Your task to perform on an android device: install app "Grab" Image 0: 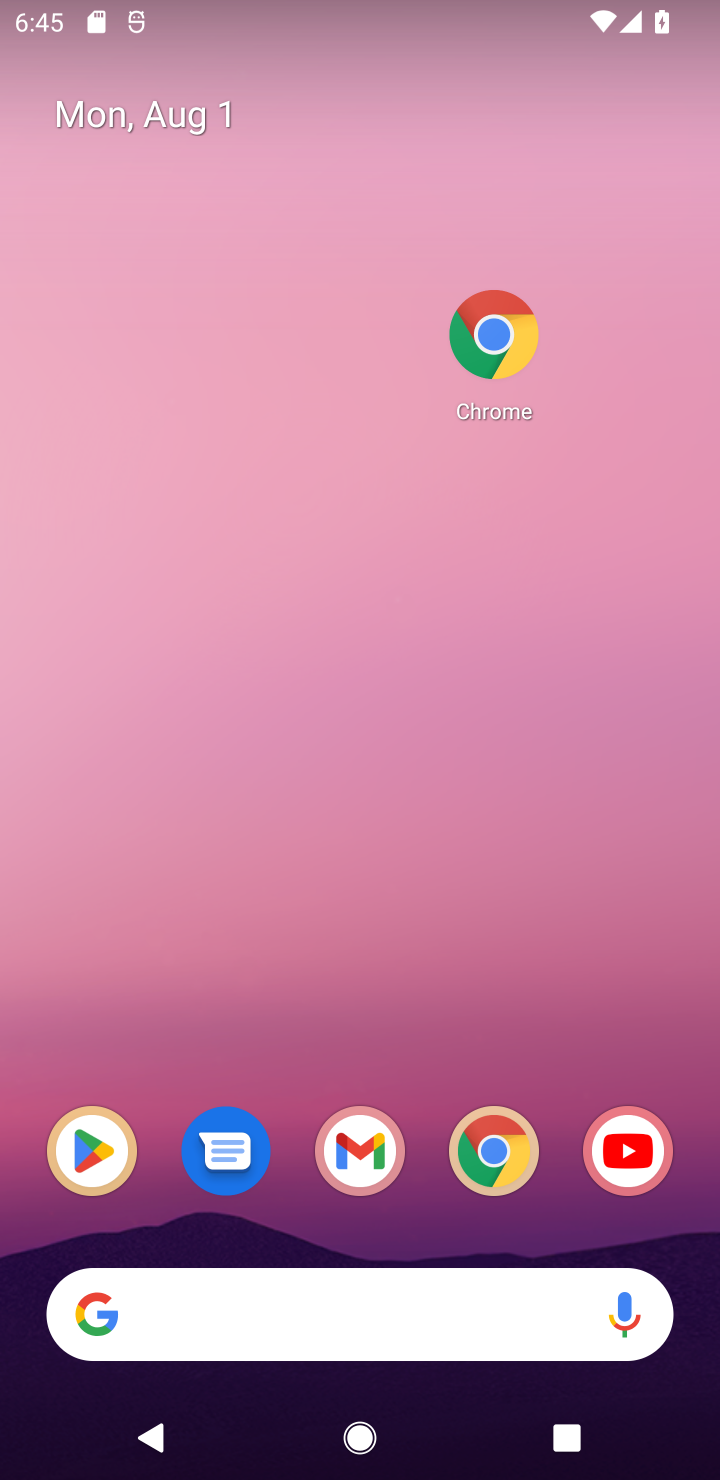
Step 0: click (92, 1180)
Your task to perform on an android device: install app "Grab" Image 1: 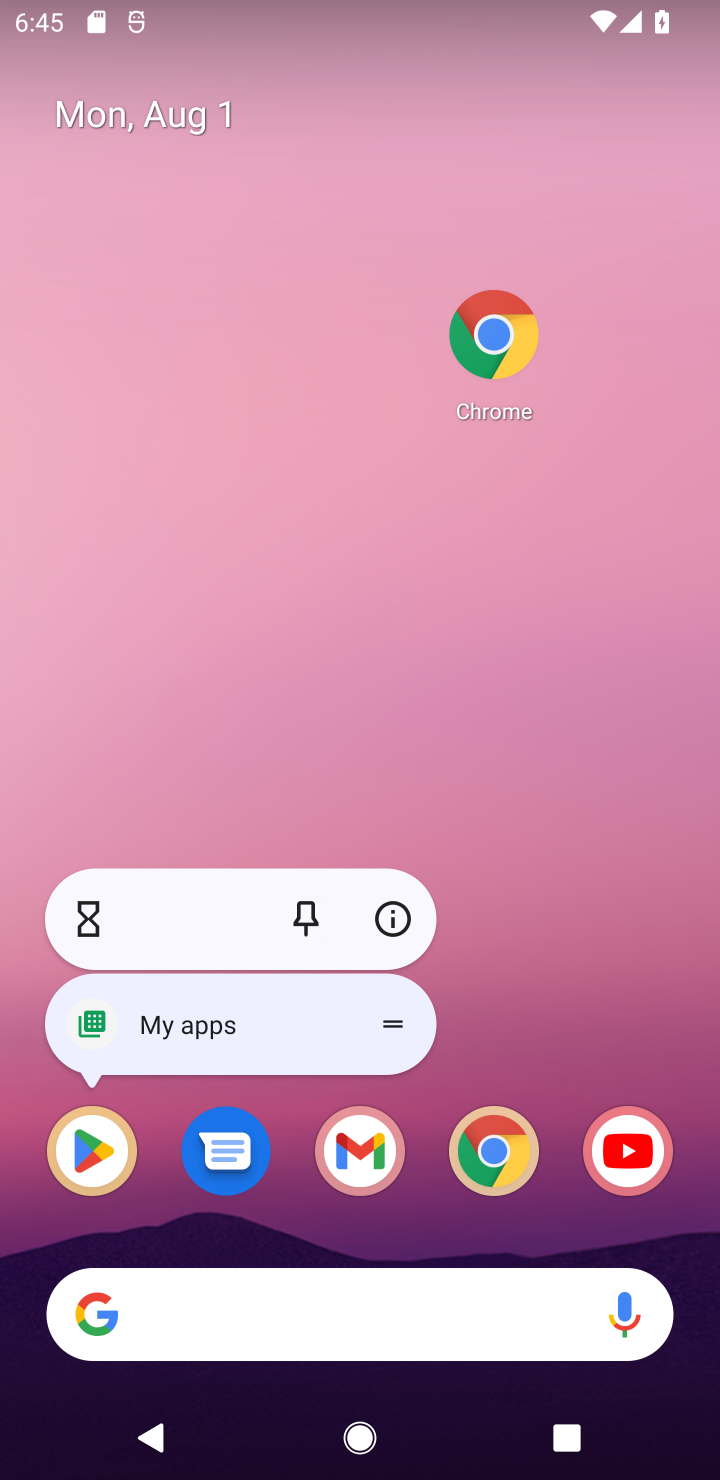
Step 1: click (84, 1144)
Your task to perform on an android device: install app "Grab" Image 2: 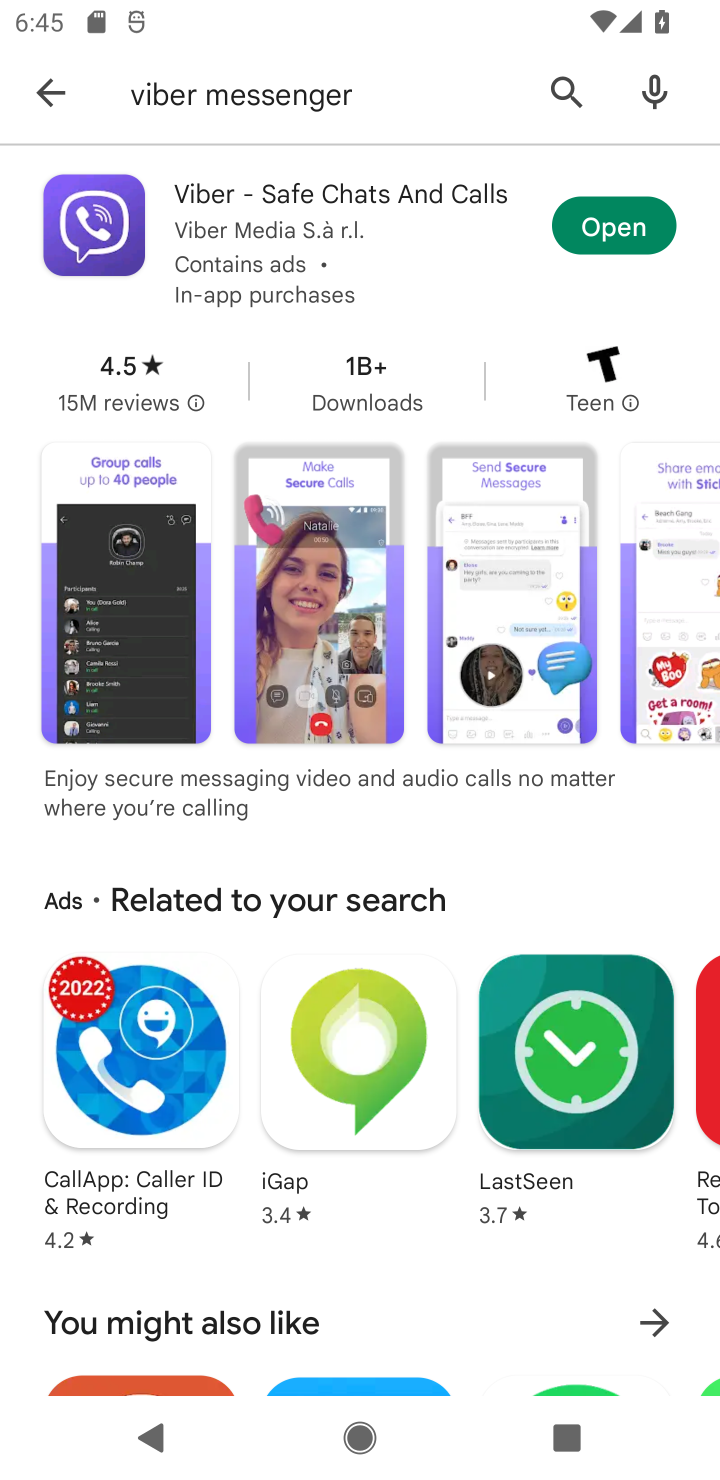
Step 2: click (567, 92)
Your task to perform on an android device: install app "Grab" Image 3: 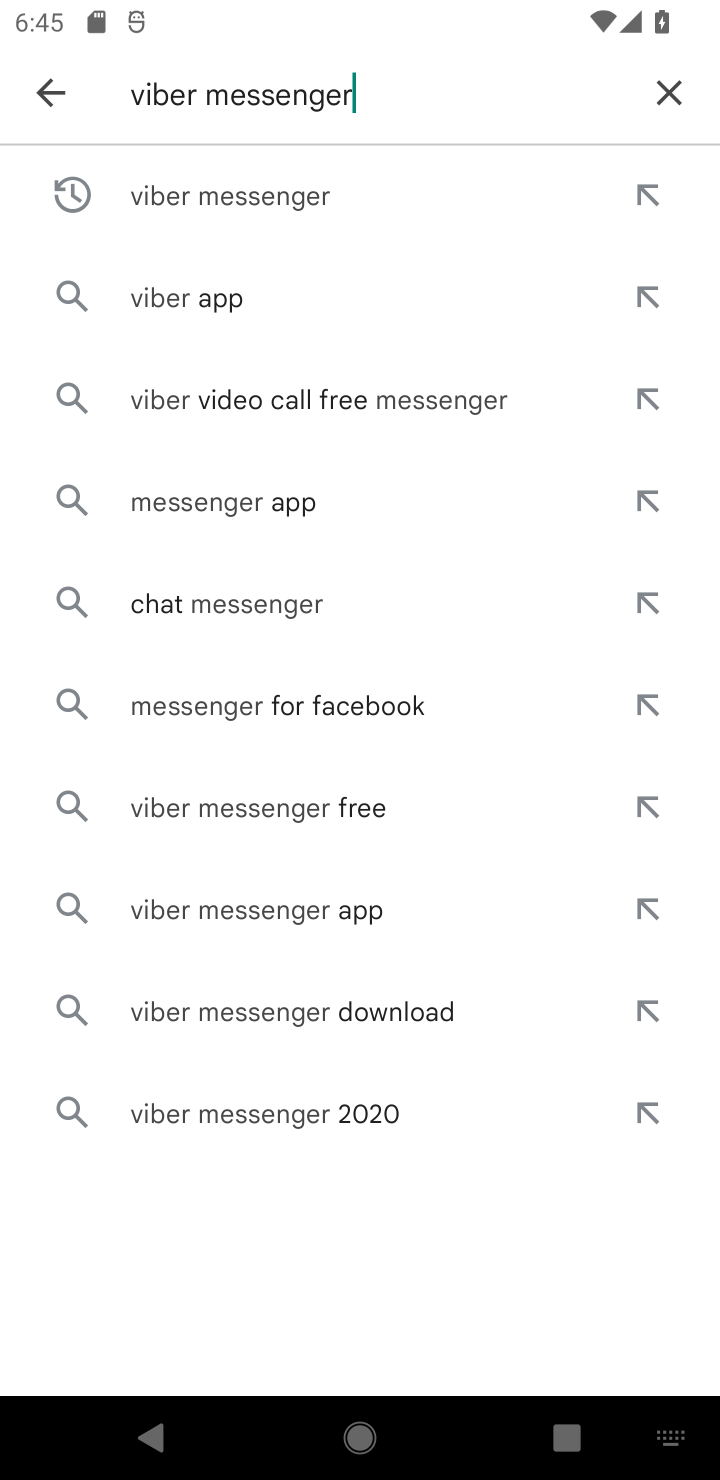
Step 3: click (665, 91)
Your task to perform on an android device: install app "Grab" Image 4: 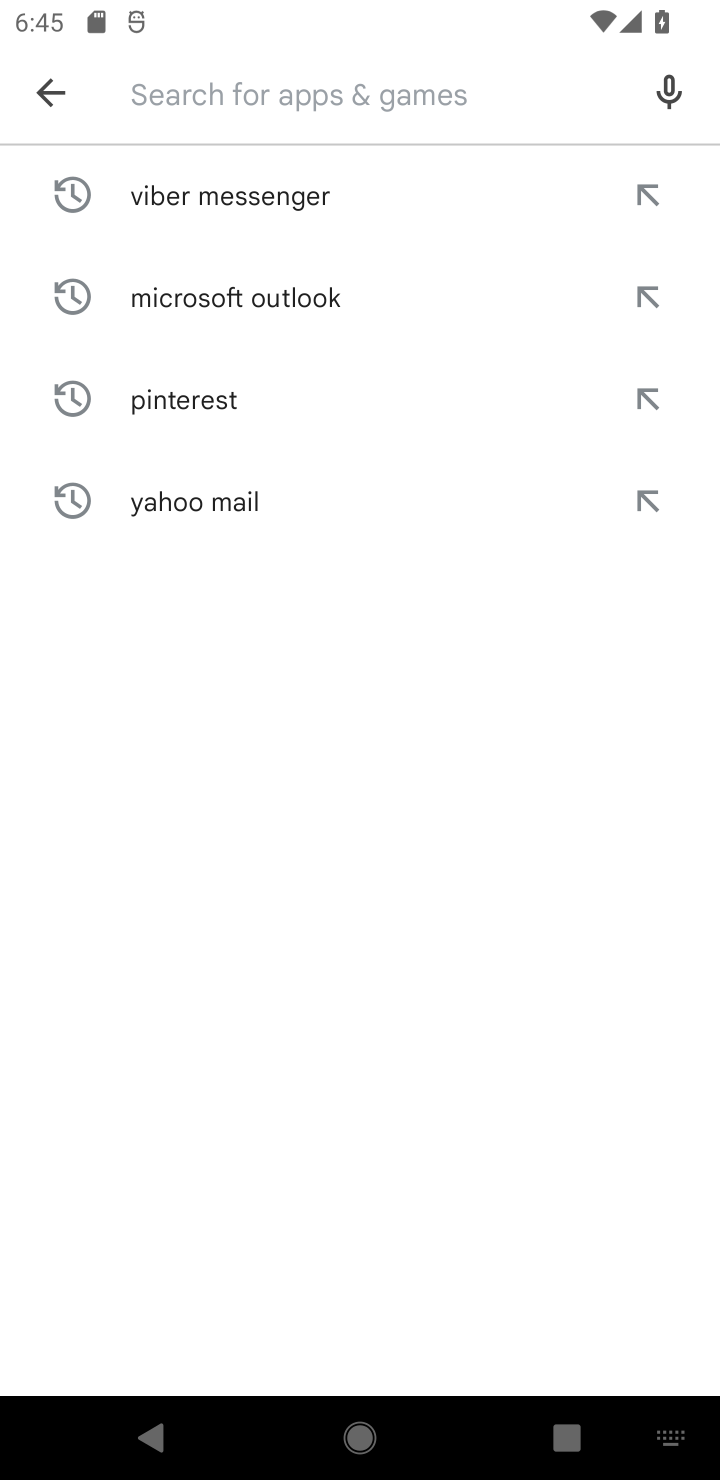
Step 4: click (373, 108)
Your task to perform on an android device: install app "Grab" Image 5: 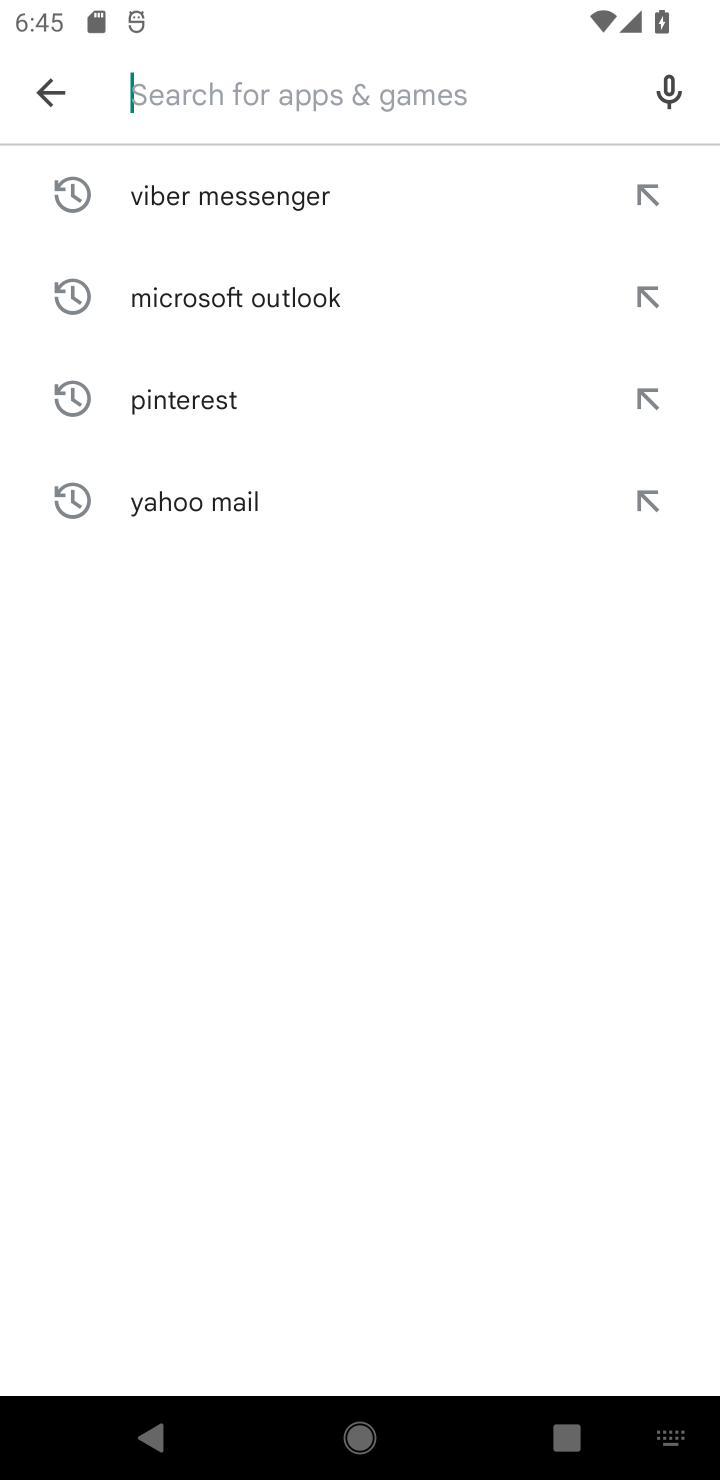
Step 5: type "Grab"
Your task to perform on an android device: install app "Grab" Image 6: 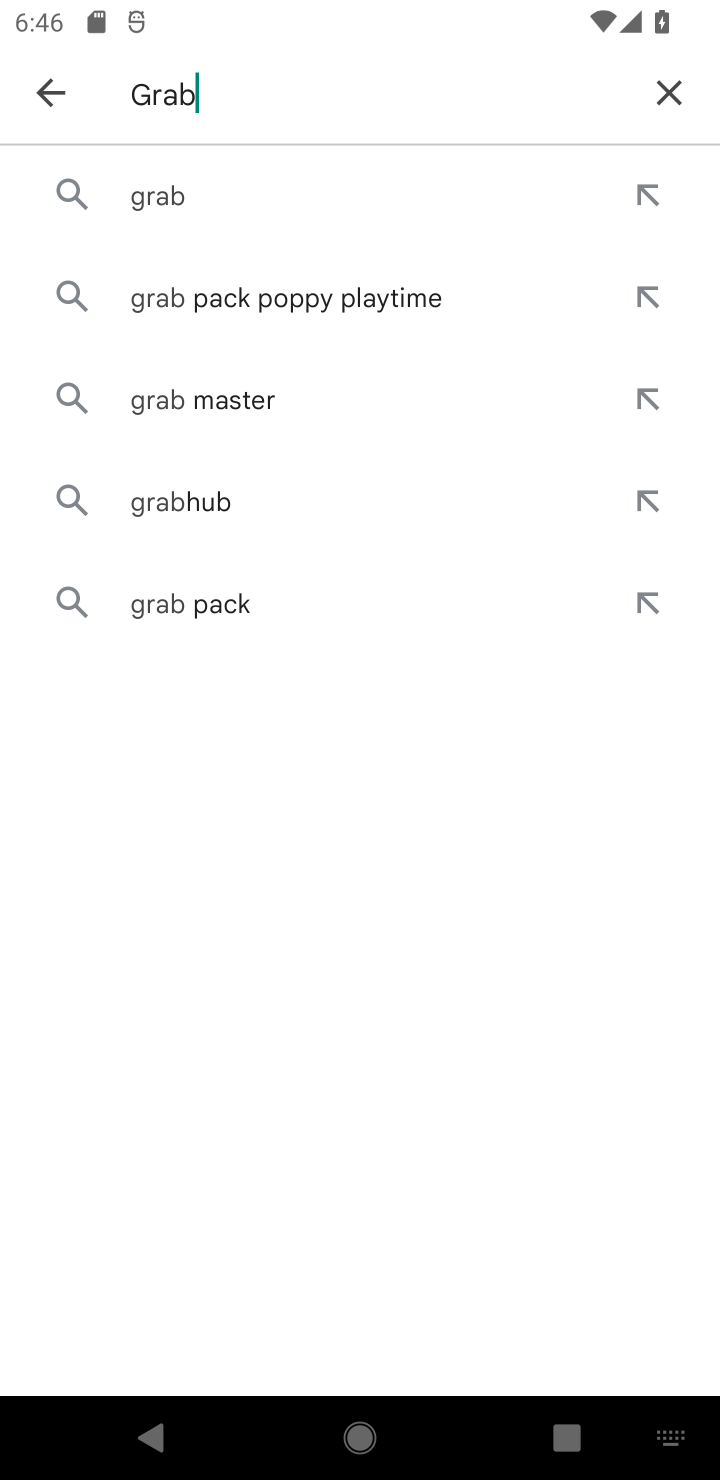
Step 6: click (163, 199)
Your task to perform on an android device: install app "Grab" Image 7: 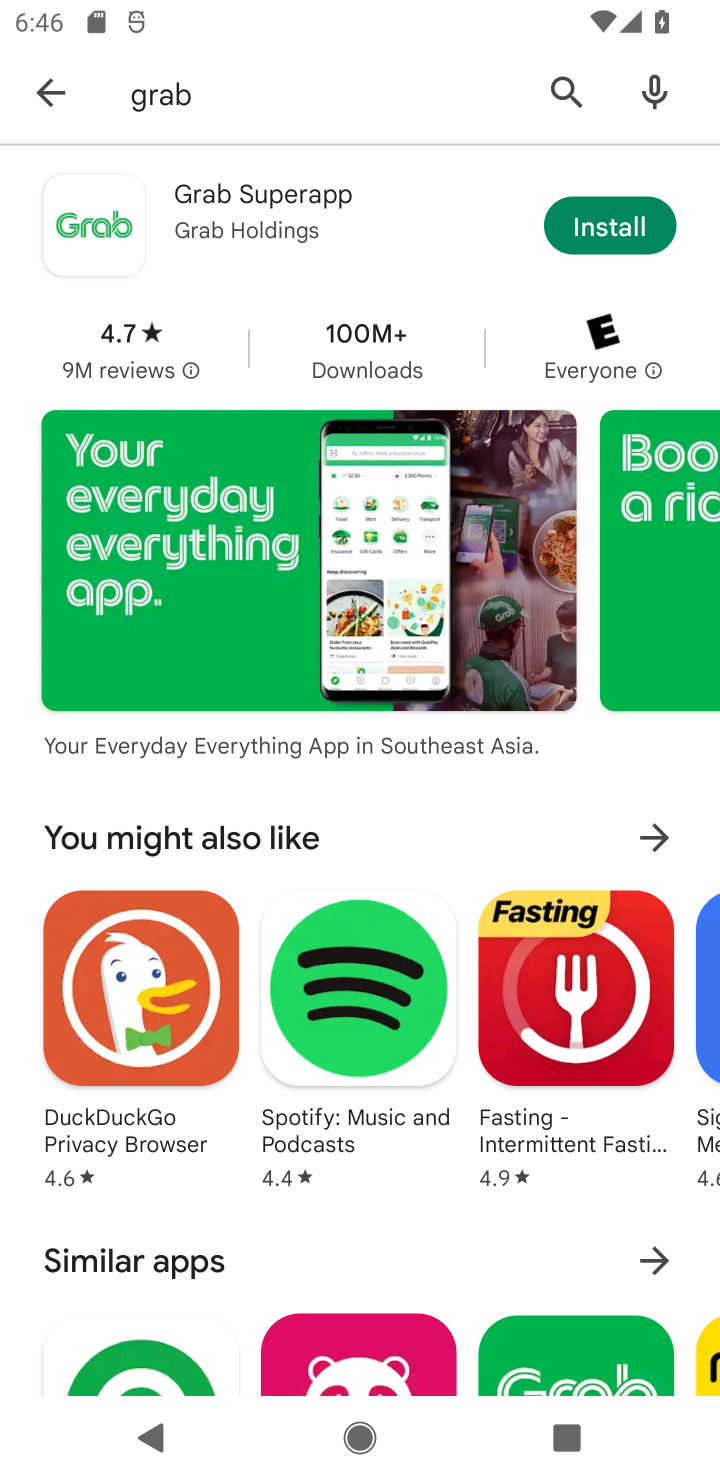
Step 7: click (590, 225)
Your task to perform on an android device: install app "Grab" Image 8: 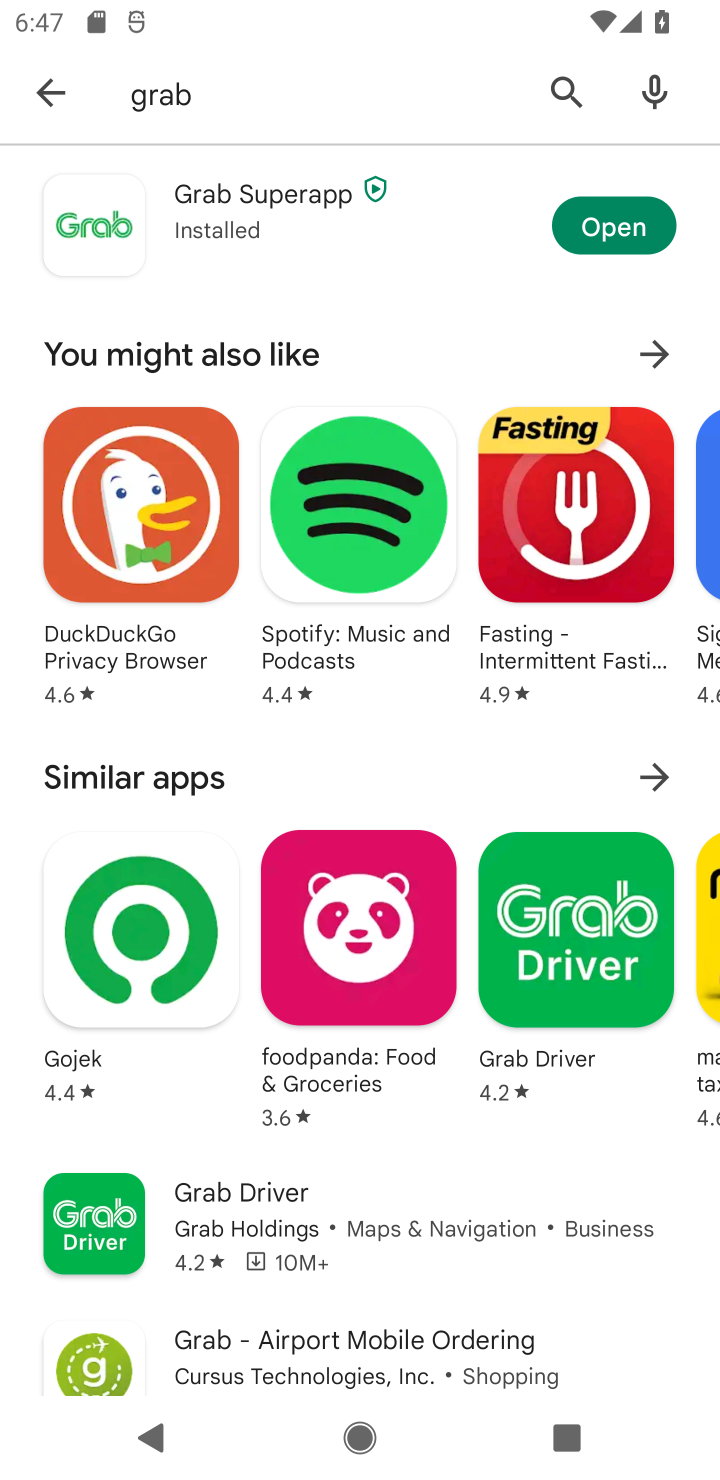
Step 8: task complete